Your task to perform on an android device: change the clock display to analog Image 0: 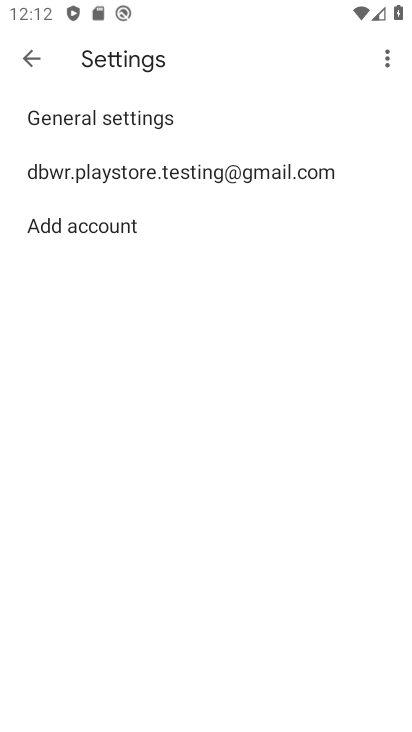
Step 0: drag from (282, 581) to (274, 258)
Your task to perform on an android device: change the clock display to analog Image 1: 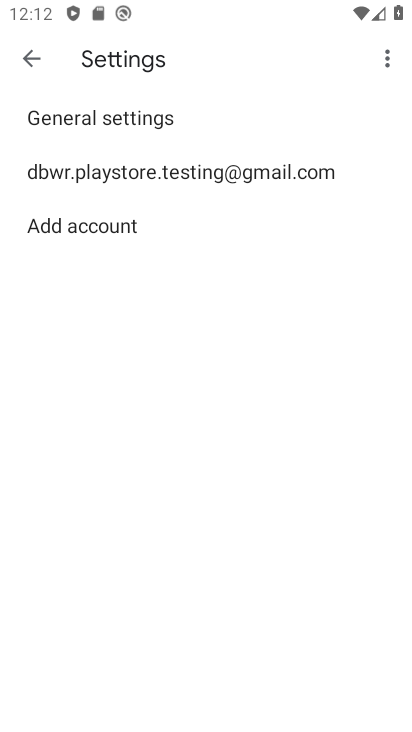
Step 1: press home button
Your task to perform on an android device: change the clock display to analog Image 2: 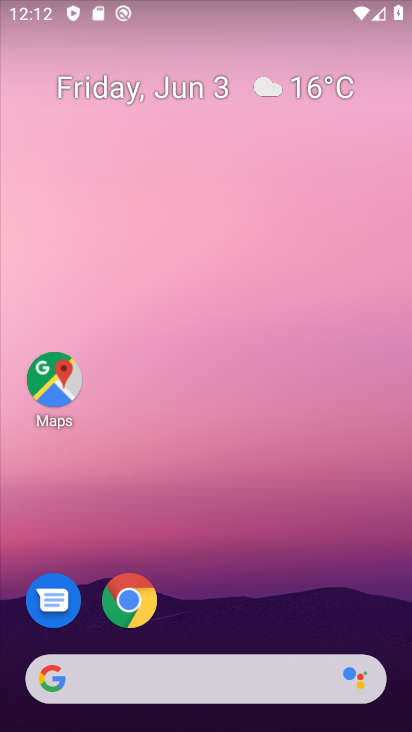
Step 2: drag from (308, 591) to (249, 138)
Your task to perform on an android device: change the clock display to analog Image 3: 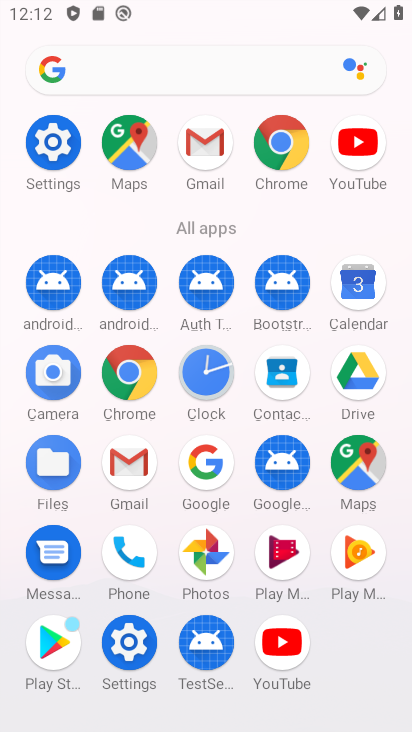
Step 3: click (218, 379)
Your task to perform on an android device: change the clock display to analog Image 4: 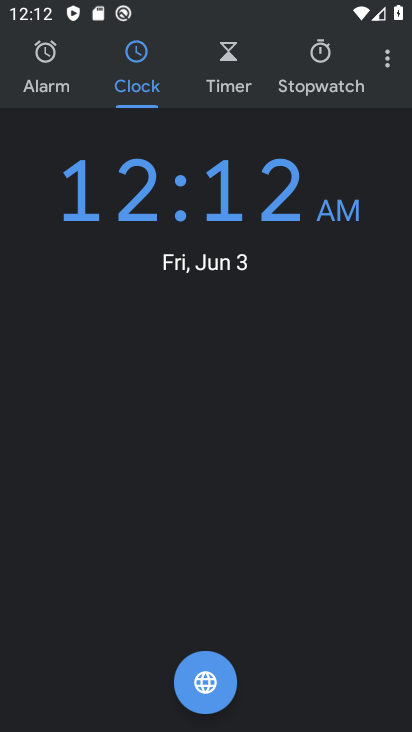
Step 4: click (393, 53)
Your task to perform on an android device: change the clock display to analog Image 5: 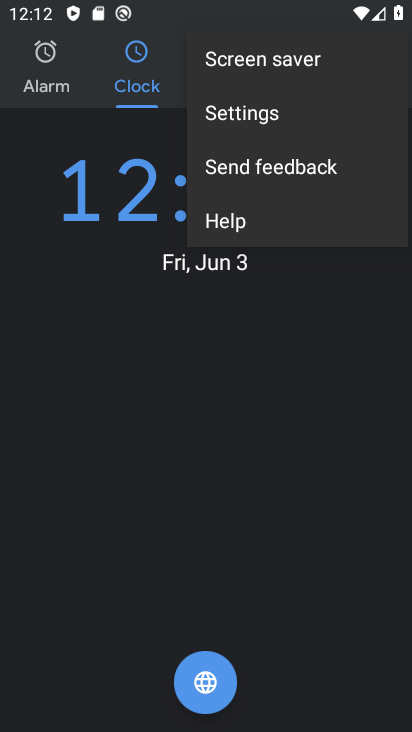
Step 5: click (276, 124)
Your task to perform on an android device: change the clock display to analog Image 6: 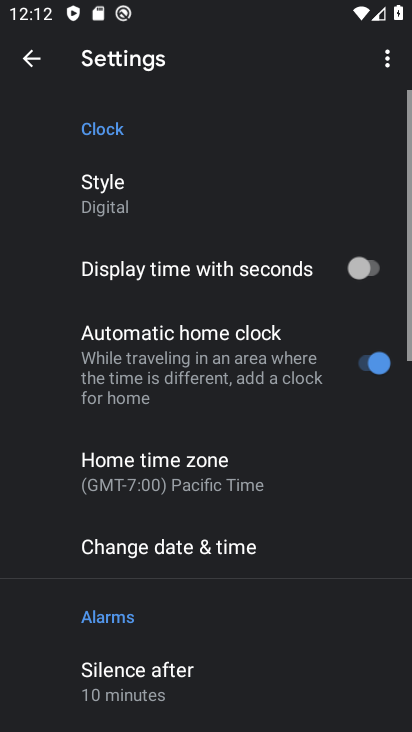
Step 6: click (123, 189)
Your task to perform on an android device: change the clock display to analog Image 7: 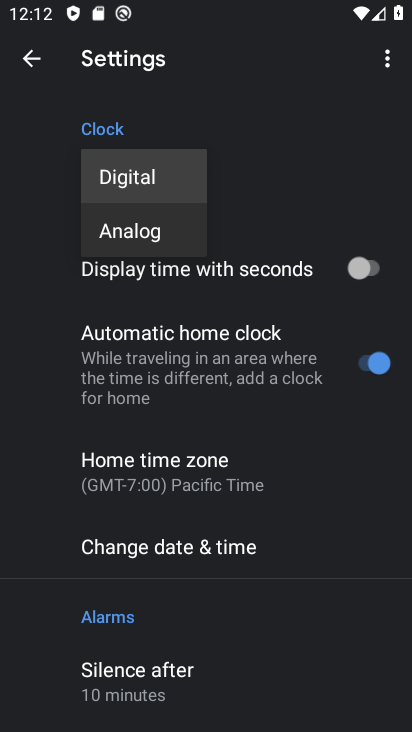
Step 7: click (147, 229)
Your task to perform on an android device: change the clock display to analog Image 8: 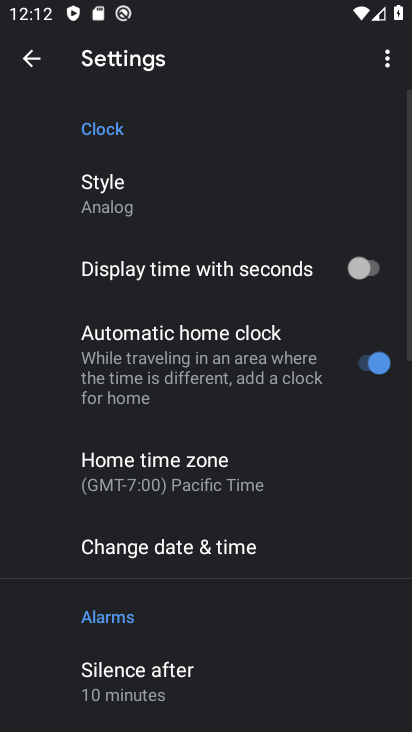
Step 8: task complete